Your task to perform on an android device: Set the phone to "Do not disturb". Image 0: 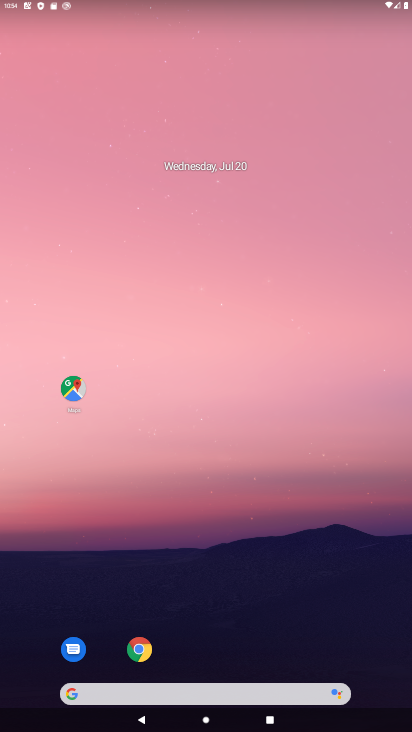
Step 0: task complete